Your task to perform on an android device: Go to notification settings Image 0: 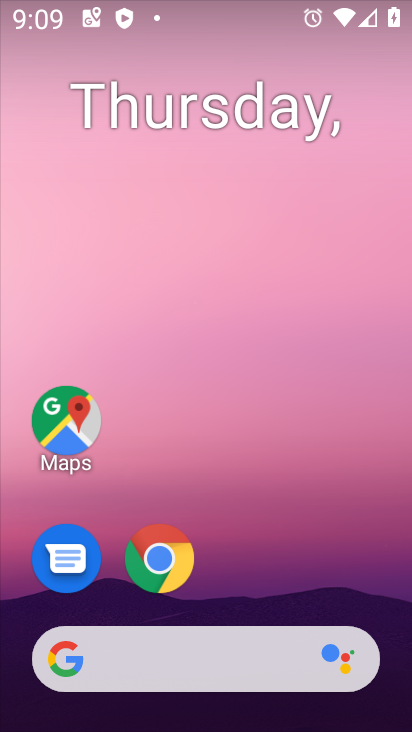
Step 0: drag from (335, 518) to (342, 151)
Your task to perform on an android device: Go to notification settings Image 1: 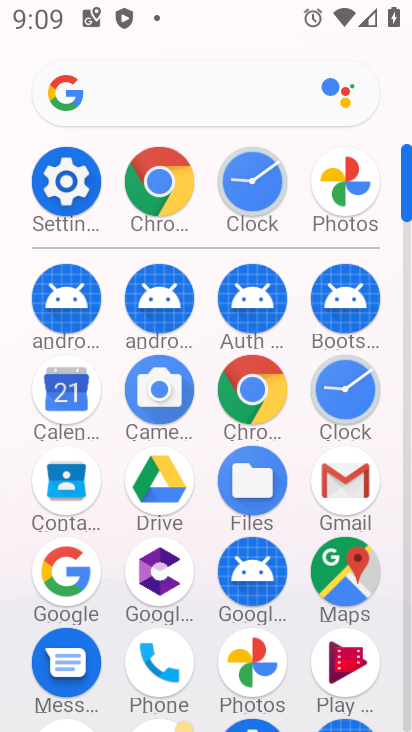
Step 1: click (74, 188)
Your task to perform on an android device: Go to notification settings Image 2: 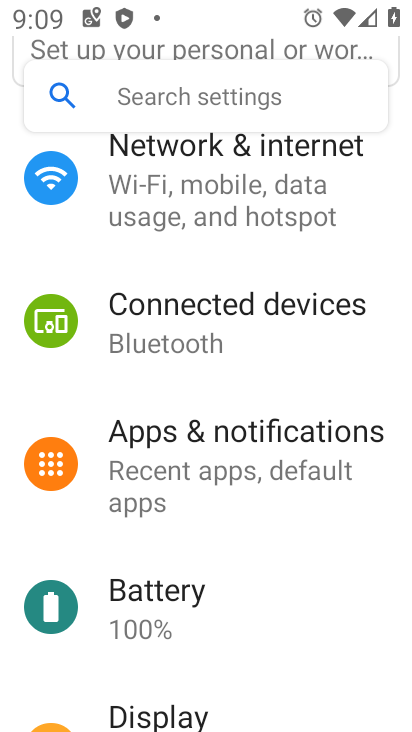
Step 2: drag from (284, 621) to (310, 532)
Your task to perform on an android device: Go to notification settings Image 3: 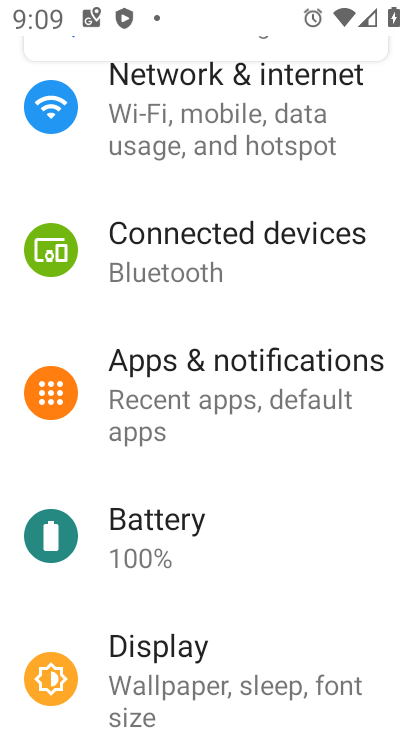
Step 3: drag from (284, 675) to (302, 545)
Your task to perform on an android device: Go to notification settings Image 4: 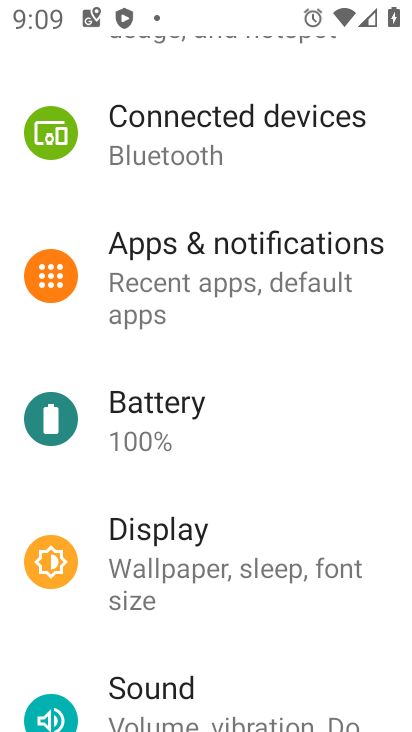
Step 4: drag from (283, 653) to (295, 538)
Your task to perform on an android device: Go to notification settings Image 5: 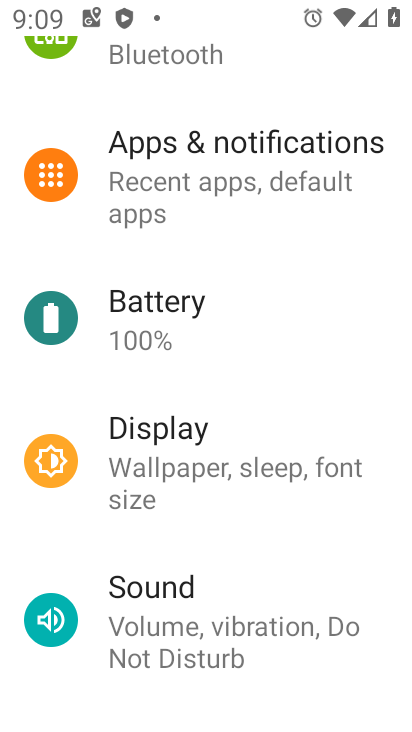
Step 5: drag from (300, 665) to (299, 541)
Your task to perform on an android device: Go to notification settings Image 6: 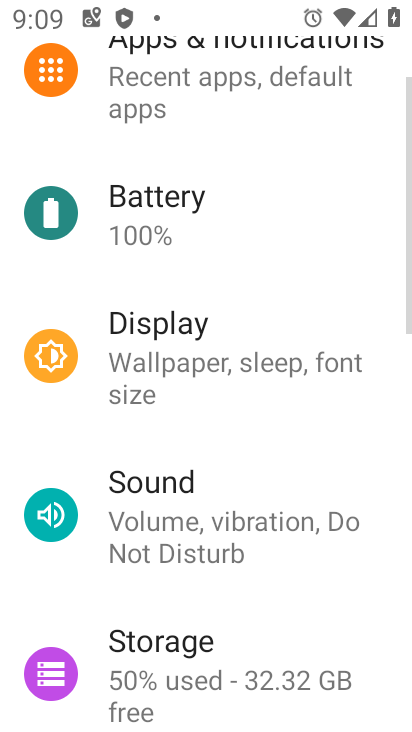
Step 6: drag from (275, 662) to (296, 530)
Your task to perform on an android device: Go to notification settings Image 7: 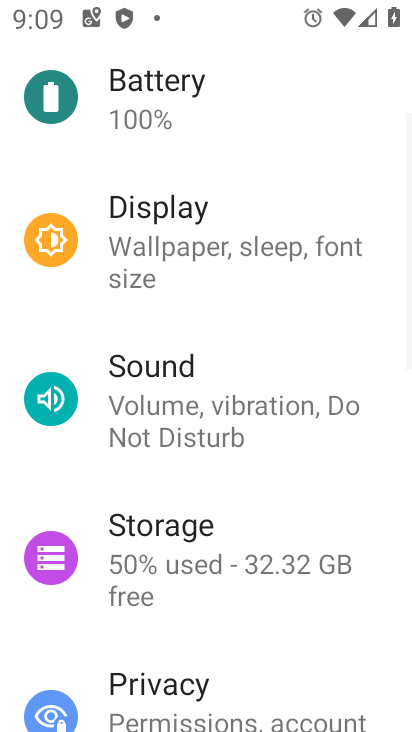
Step 7: drag from (345, 434) to (337, 547)
Your task to perform on an android device: Go to notification settings Image 8: 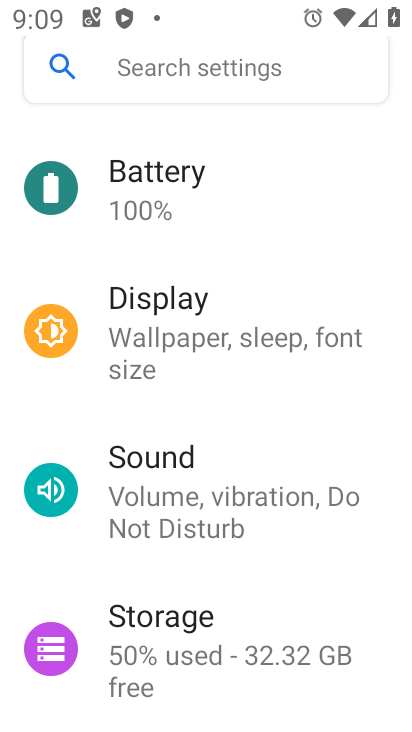
Step 8: drag from (347, 416) to (349, 533)
Your task to perform on an android device: Go to notification settings Image 9: 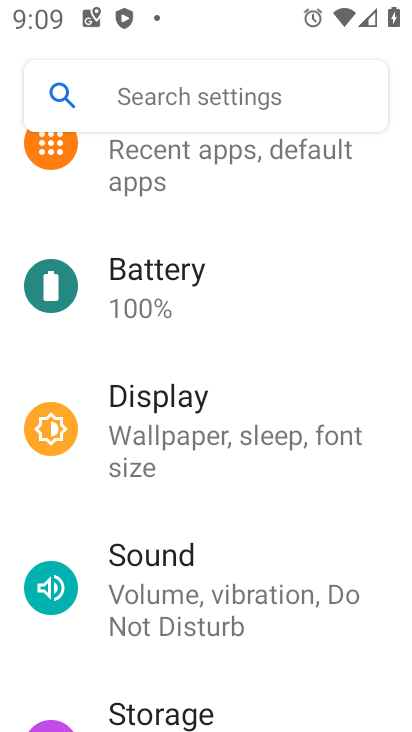
Step 9: drag from (359, 363) to (347, 506)
Your task to perform on an android device: Go to notification settings Image 10: 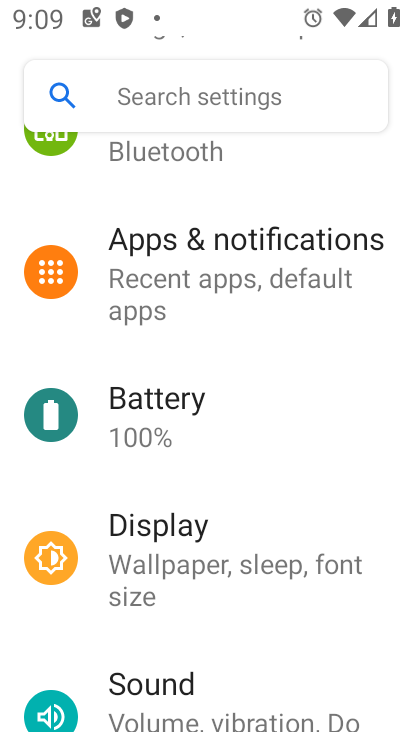
Step 10: drag from (343, 366) to (340, 521)
Your task to perform on an android device: Go to notification settings Image 11: 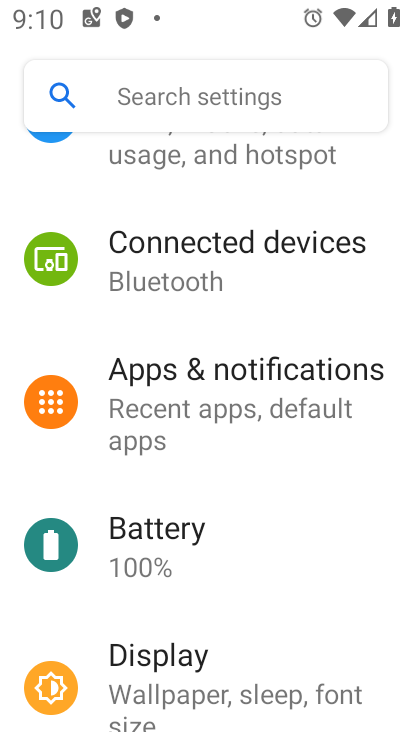
Step 11: drag from (363, 319) to (357, 515)
Your task to perform on an android device: Go to notification settings Image 12: 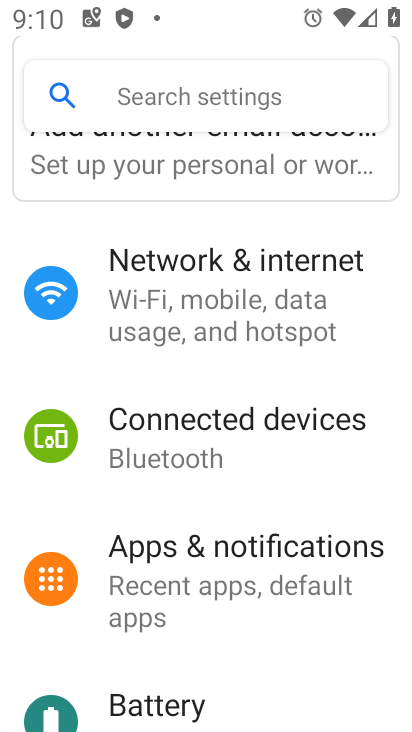
Step 12: click (321, 566)
Your task to perform on an android device: Go to notification settings Image 13: 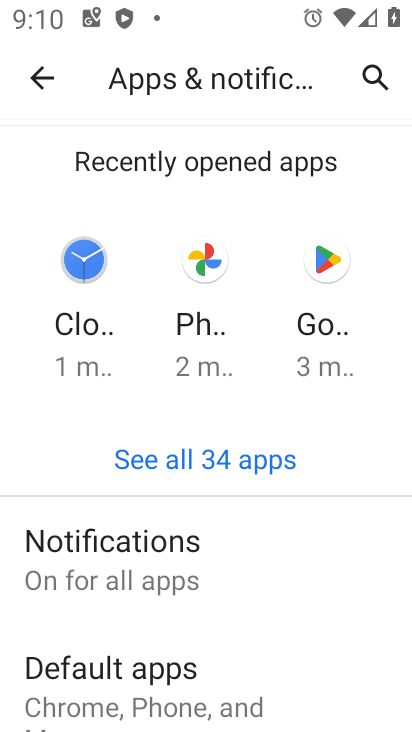
Step 13: click (212, 555)
Your task to perform on an android device: Go to notification settings Image 14: 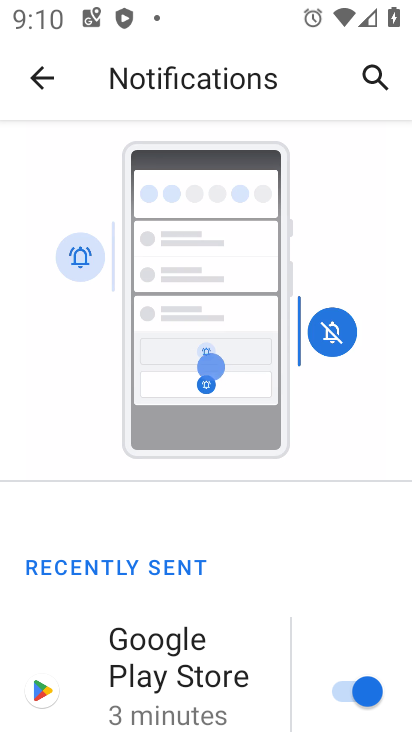
Step 14: task complete